Your task to perform on an android device: turn off location history Image 0: 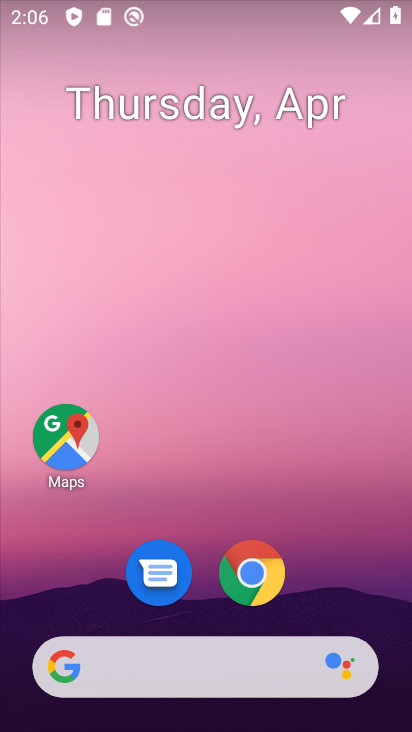
Step 0: drag from (346, 594) to (281, 66)
Your task to perform on an android device: turn off location history Image 1: 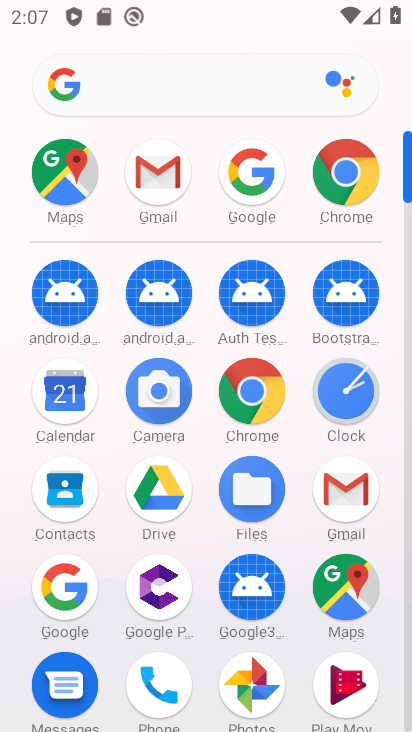
Step 1: click (406, 720)
Your task to perform on an android device: turn off location history Image 2: 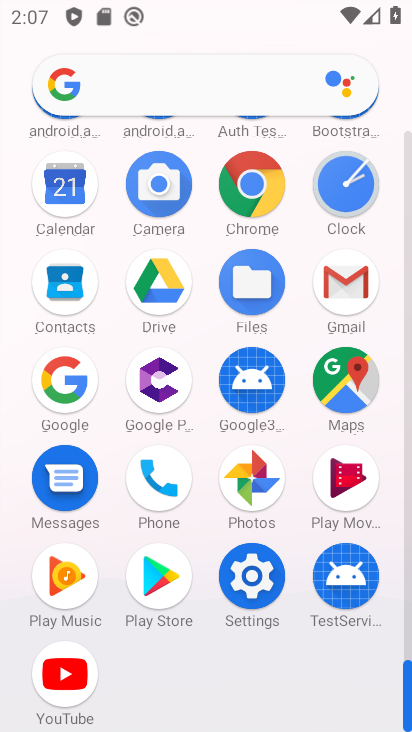
Step 2: click (243, 593)
Your task to perform on an android device: turn off location history Image 3: 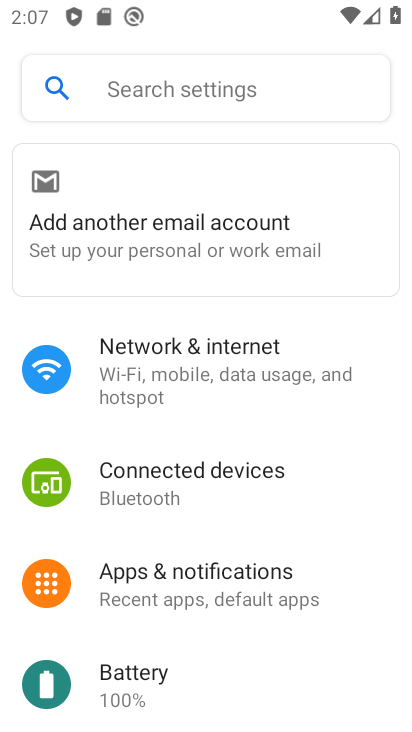
Step 3: drag from (164, 612) to (250, 136)
Your task to perform on an android device: turn off location history Image 4: 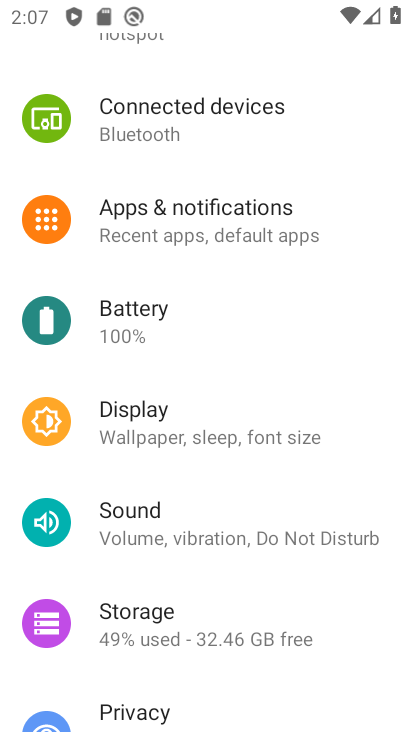
Step 4: drag from (158, 599) to (239, 248)
Your task to perform on an android device: turn off location history Image 5: 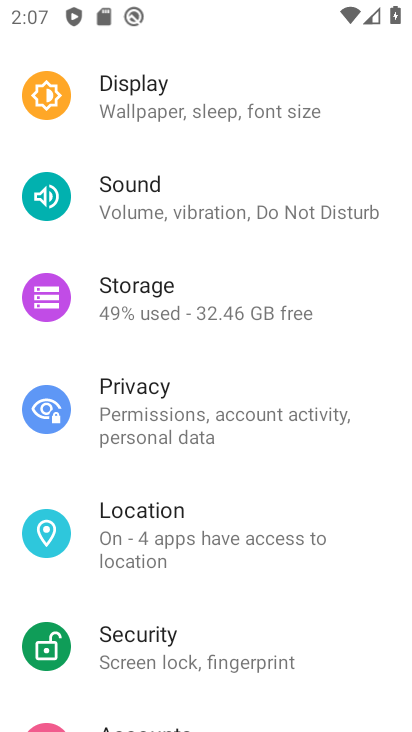
Step 5: click (148, 527)
Your task to perform on an android device: turn off location history Image 6: 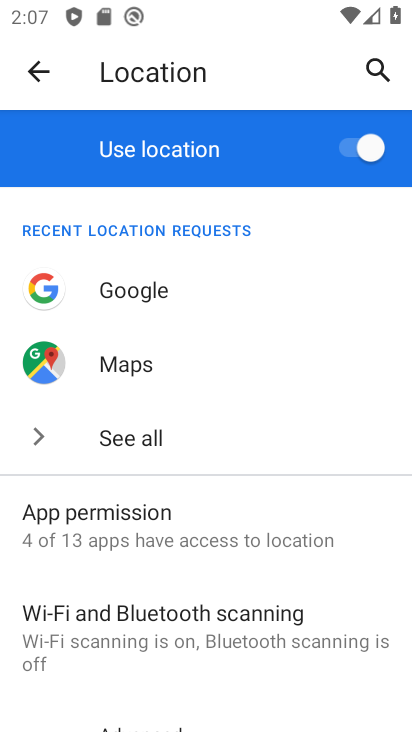
Step 6: drag from (177, 557) to (214, 274)
Your task to perform on an android device: turn off location history Image 7: 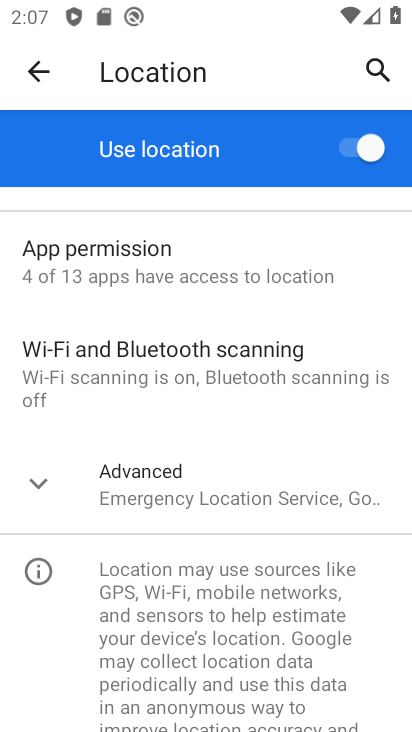
Step 7: click (66, 486)
Your task to perform on an android device: turn off location history Image 8: 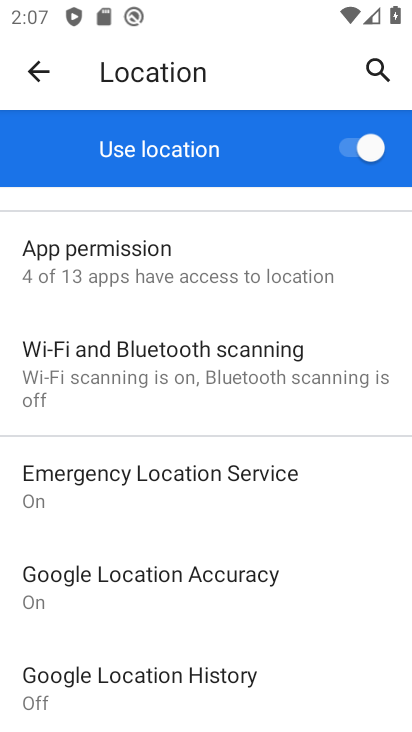
Step 8: click (203, 682)
Your task to perform on an android device: turn off location history Image 9: 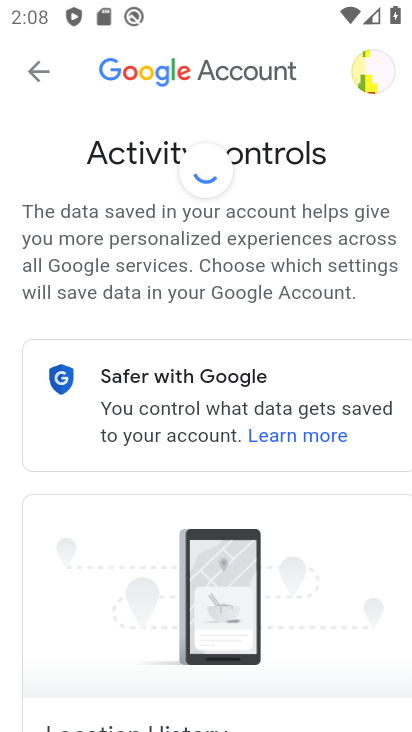
Step 9: drag from (313, 595) to (233, 105)
Your task to perform on an android device: turn off location history Image 10: 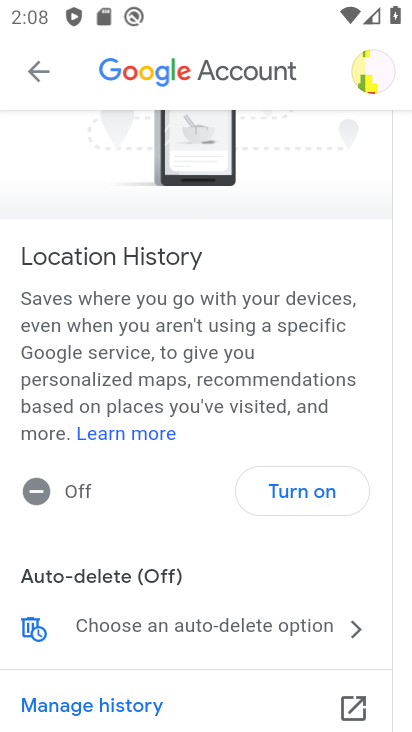
Step 10: click (292, 482)
Your task to perform on an android device: turn off location history Image 11: 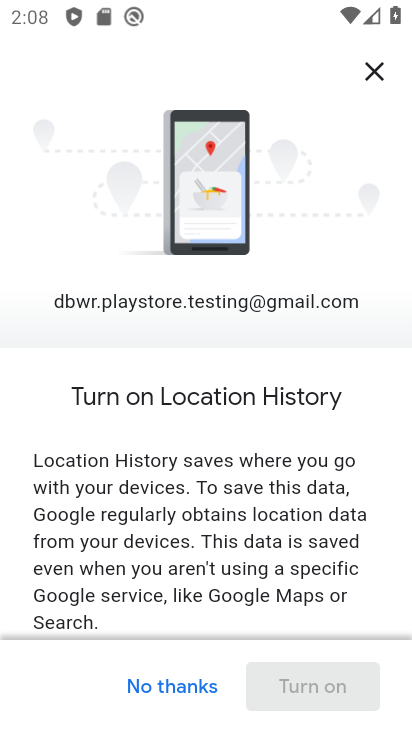
Step 11: task complete